Your task to perform on an android device: visit the assistant section in the google photos Image 0: 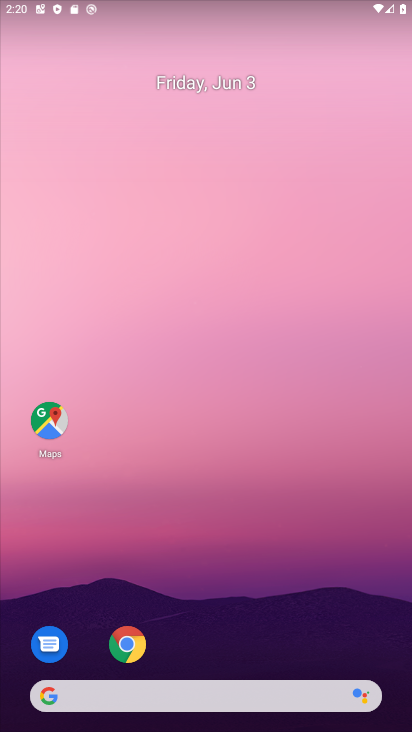
Step 0: drag from (223, 630) to (224, 183)
Your task to perform on an android device: visit the assistant section in the google photos Image 1: 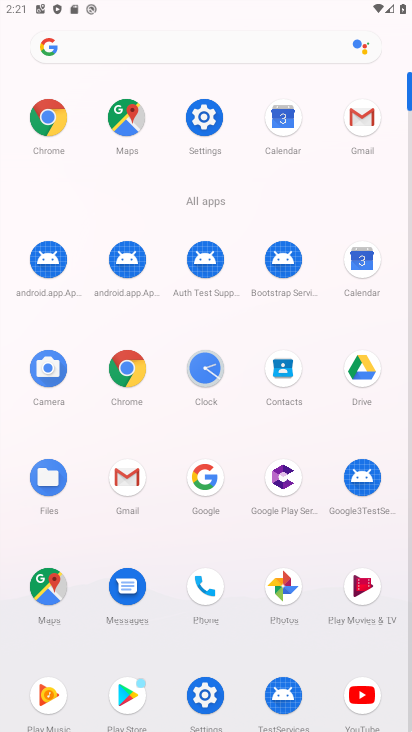
Step 1: click (278, 575)
Your task to perform on an android device: visit the assistant section in the google photos Image 2: 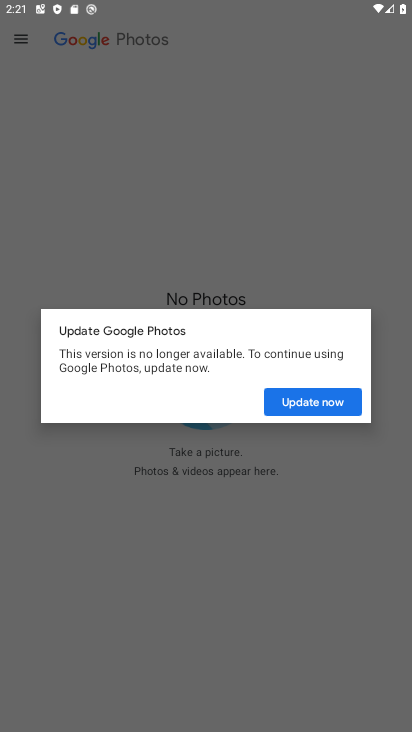
Step 2: click (292, 392)
Your task to perform on an android device: visit the assistant section in the google photos Image 3: 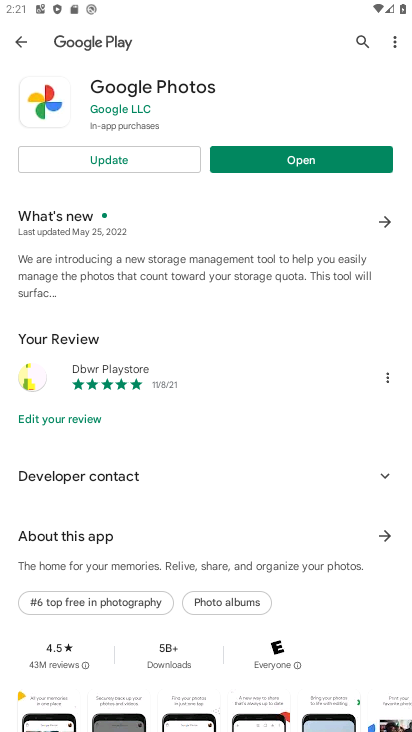
Step 3: click (245, 168)
Your task to perform on an android device: visit the assistant section in the google photos Image 4: 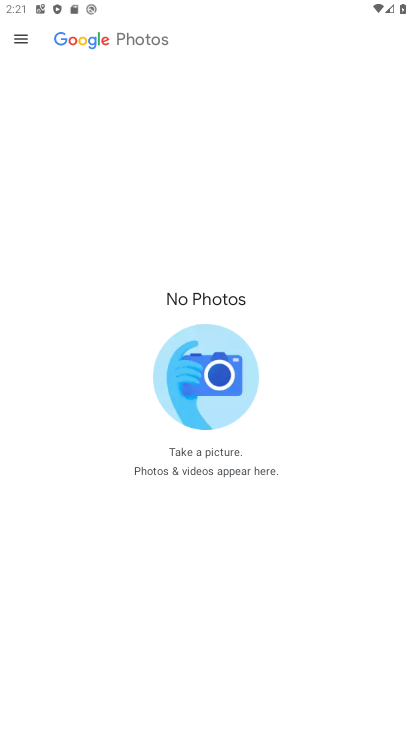
Step 4: click (27, 37)
Your task to perform on an android device: visit the assistant section in the google photos Image 5: 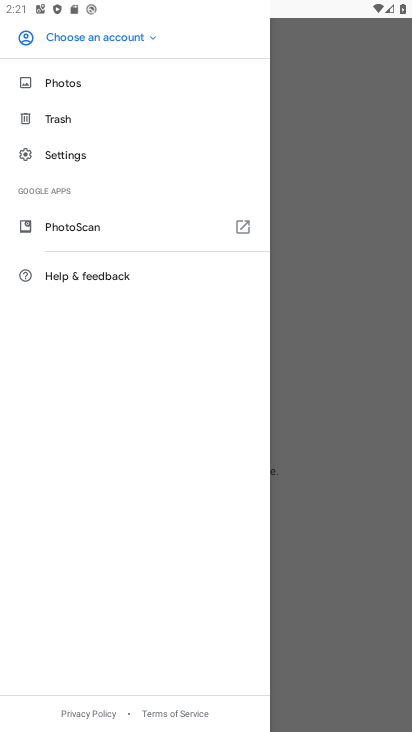
Step 5: click (114, 34)
Your task to perform on an android device: visit the assistant section in the google photos Image 6: 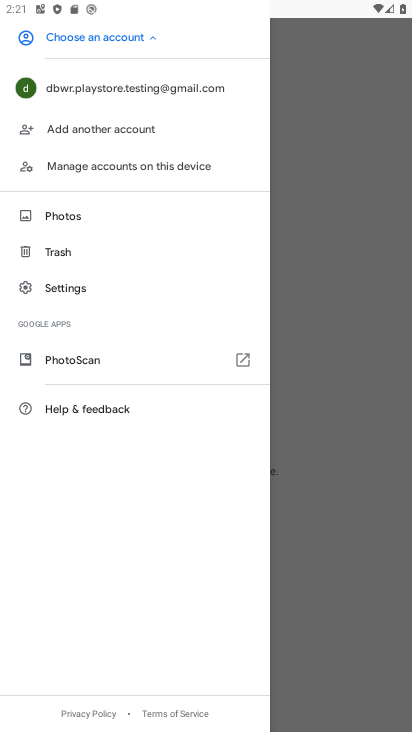
Step 6: click (114, 73)
Your task to perform on an android device: visit the assistant section in the google photos Image 7: 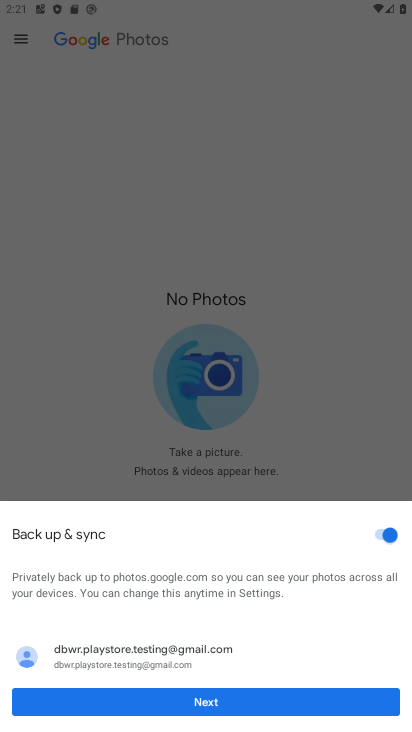
Step 7: click (209, 698)
Your task to perform on an android device: visit the assistant section in the google photos Image 8: 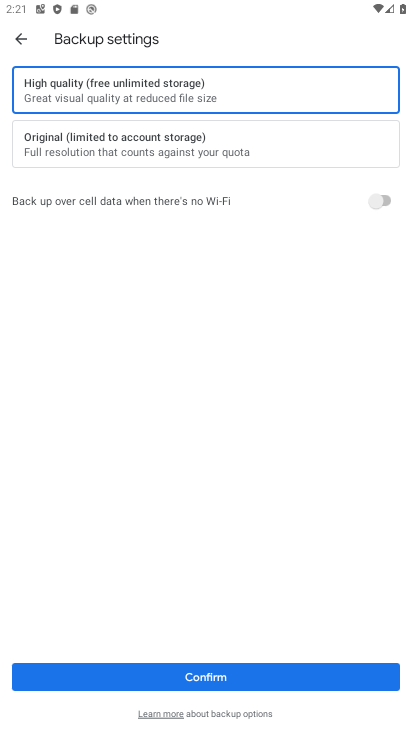
Step 8: click (218, 682)
Your task to perform on an android device: visit the assistant section in the google photos Image 9: 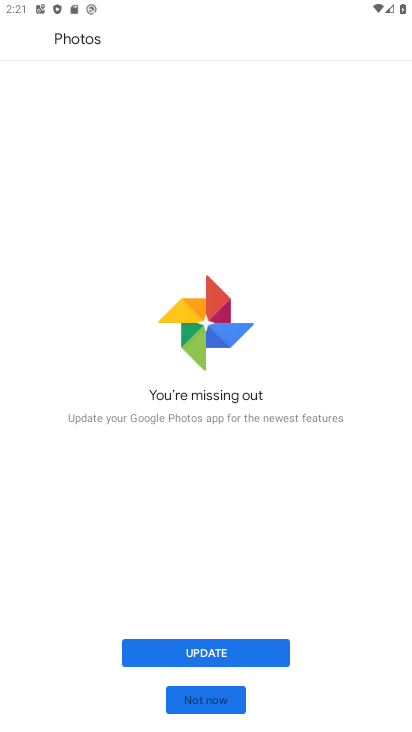
Step 9: click (238, 693)
Your task to perform on an android device: visit the assistant section in the google photos Image 10: 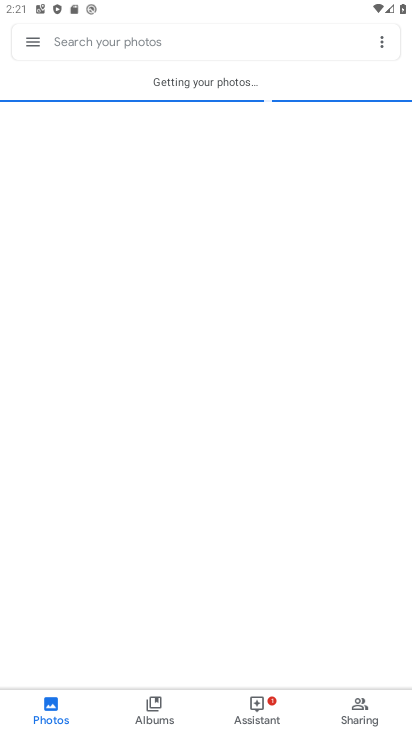
Step 10: click (249, 693)
Your task to perform on an android device: visit the assistant section in the google photos Image 11: 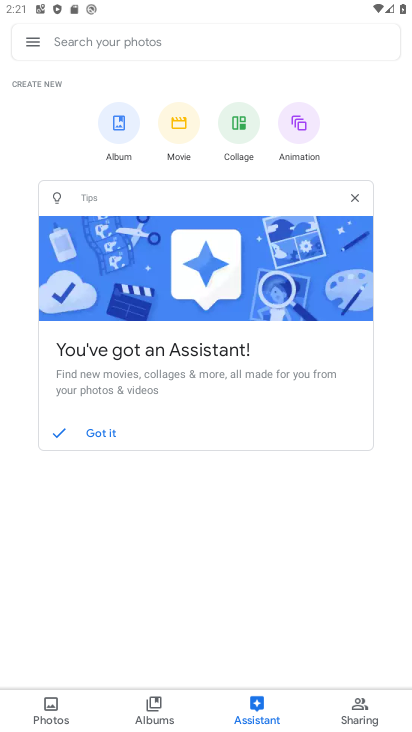
Step 11: task complete